Your task to perform on an android device: Open Amazon Image 0: 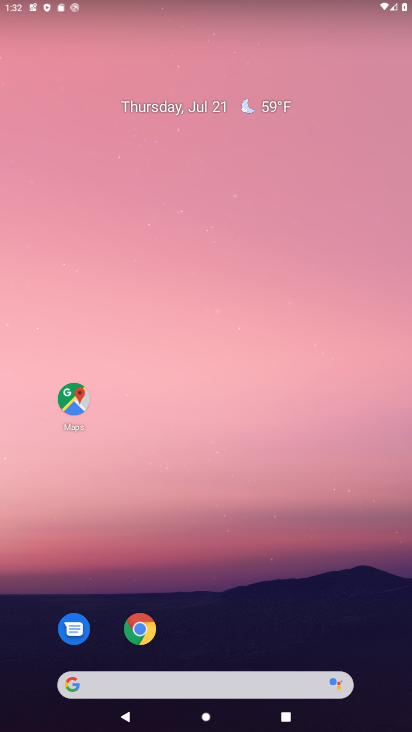
Step 0: click (138, 632)
Your task to perform on an android device: Open Amazon Image 1: 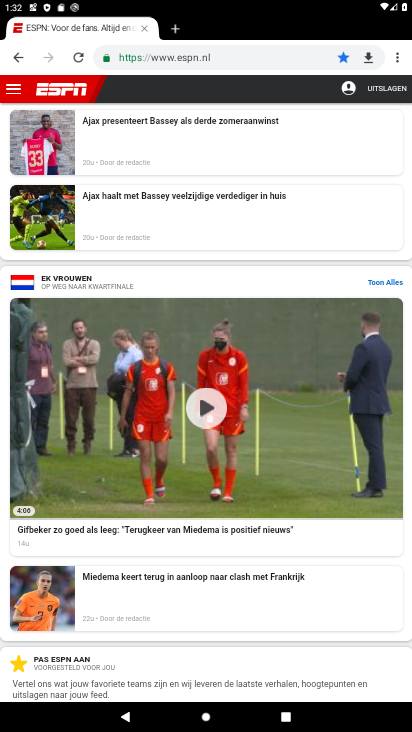
Step 1: click (237, 52)
Your task to perform on an android device: Open Amazon Image 2: 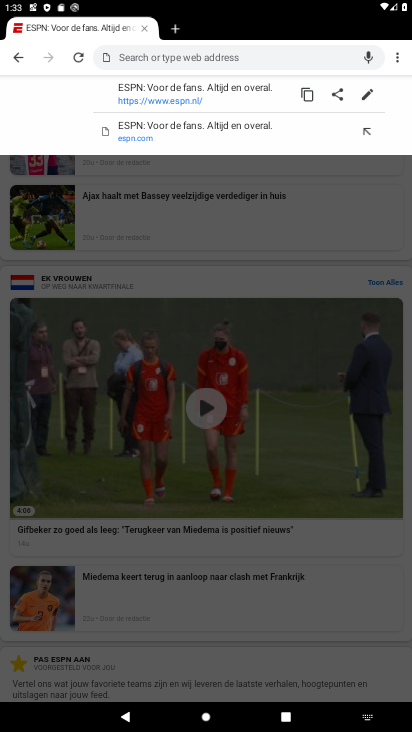
Step 2: type "amazon"
Your task to perform on an android device: Open Amazon Image 3: 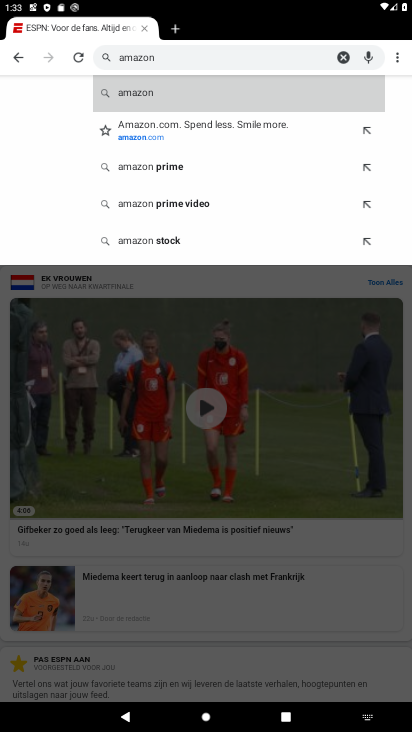
Step 3: click (152, 87)
Your task to perform on an android device: Open Amazon Image 4: 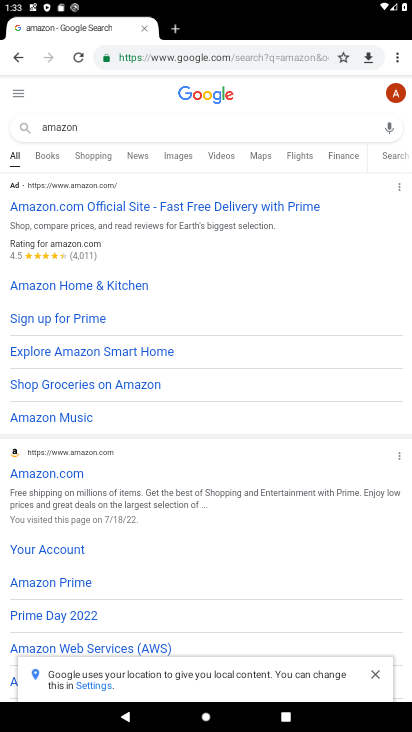
Step 4: click (69, 195)
Your task to perform on an android device: Open Amazon Image 5: 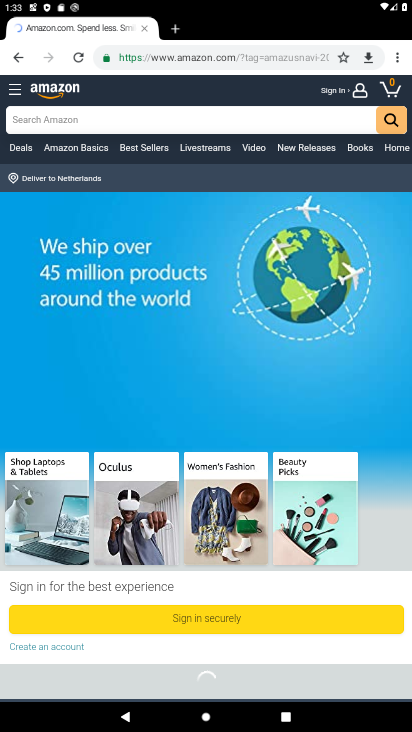
Step 5: task complete